Your task to perform on an android device: Open the map Image 0: 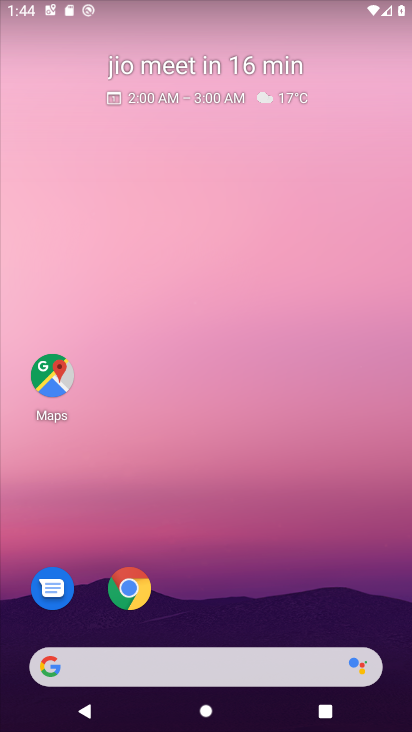
Step 0: click (42, 377)
Your task to perform on an android device: Open the map Image 1: 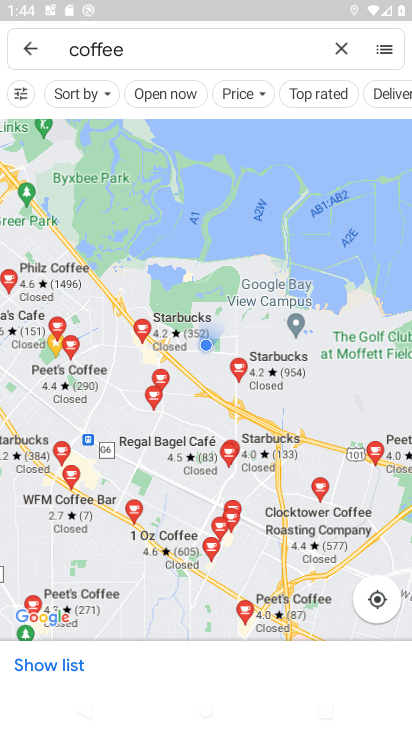
Step 1: task complete